Your task to perform on an android device: Play the last video I watched on Youtube Image 0: 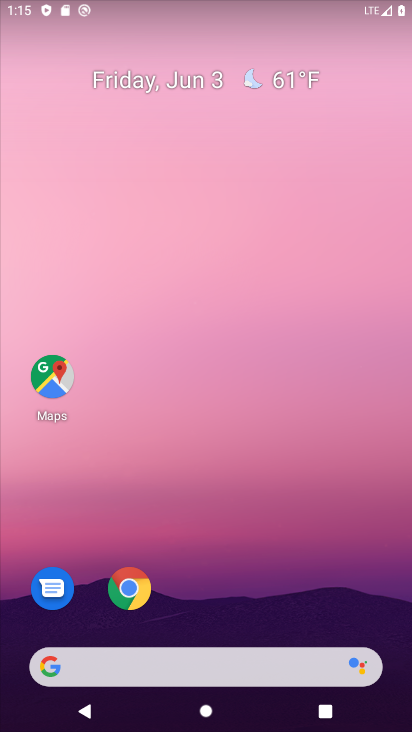
Step 0: drag from (211, 613) to (283, 116)
Your task to perform on an android device: Play the last video I watched on Youtube Image 1: 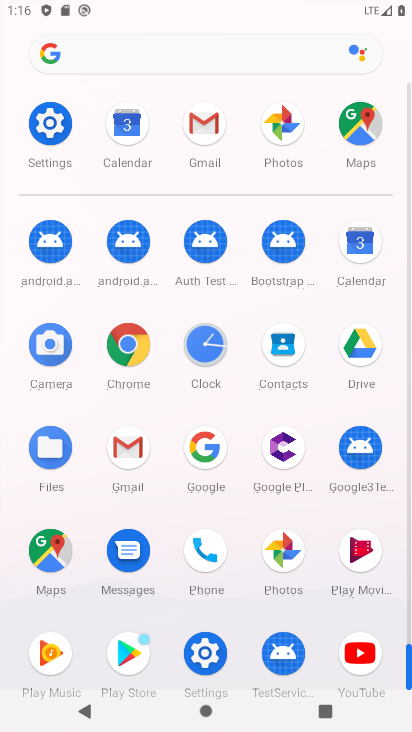
Step 1: drag from (245, 196) to (254, 62)
Your task to perform on an android device: Play the last video I watched on Youtube Image 2: 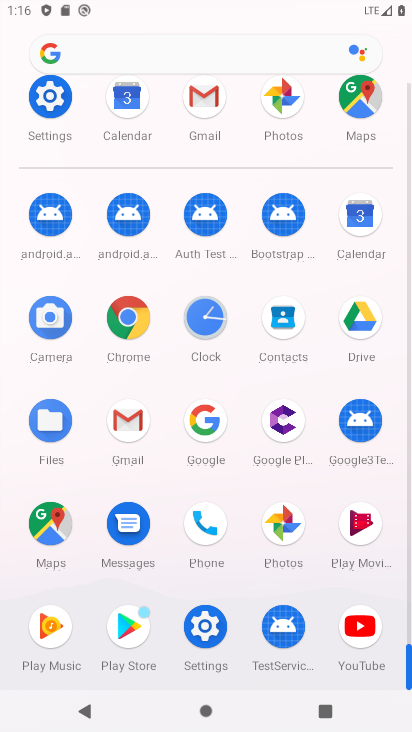
Step 2: click (355, 615)
Your task to perform on an android device: Play the last video I watched on Youtube Image 3: 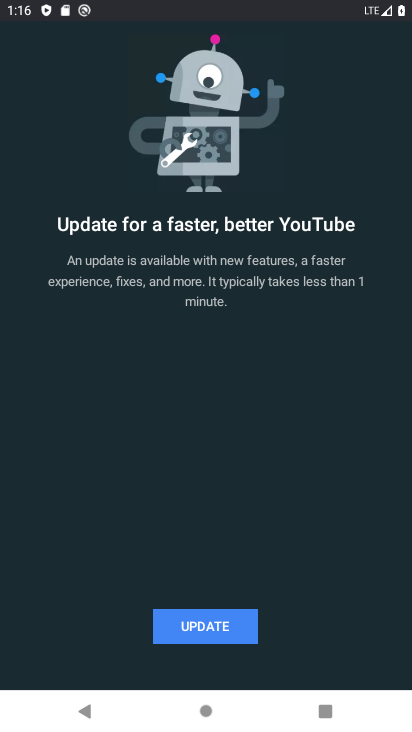
Step 3: click (217, 633)
Your task to perform on an android device: Play the last video I watched on Youtube Image 4: 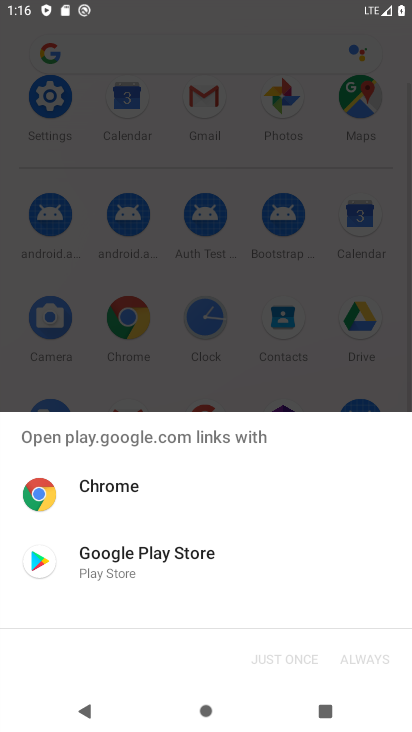
Step 4: click (205, 563)
Your task to perform on an android device: Play the last video I watched on Youtube Image 5: 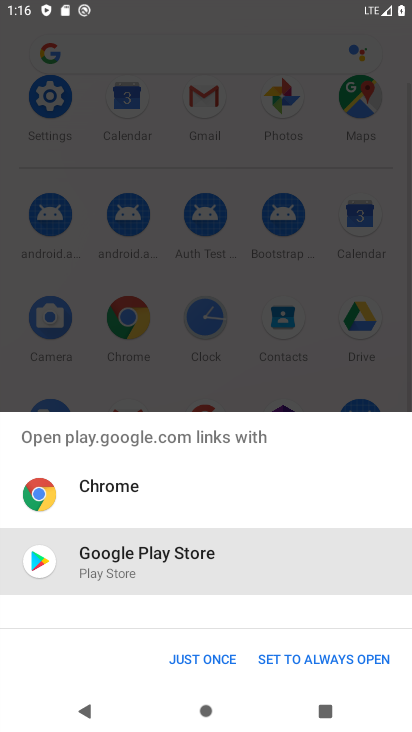
Step 5: click (200, 661)
Your task to perform on an android device: Play the last video I watched on Youtube Image 6: 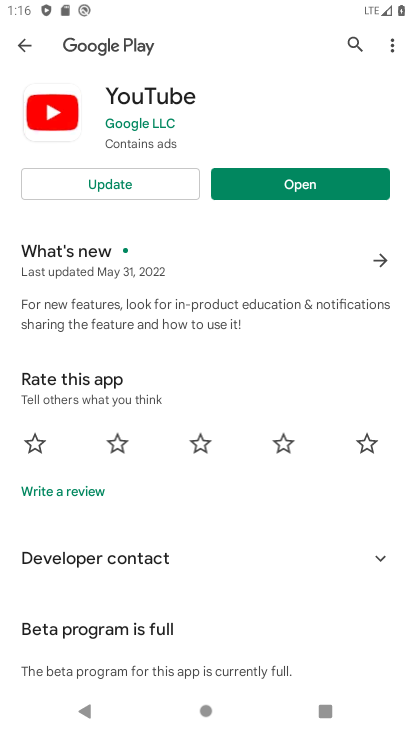
Step 6: click (142, 193)
Your task to perform on an android device: Play the last video I watched on Youtube Image 7: 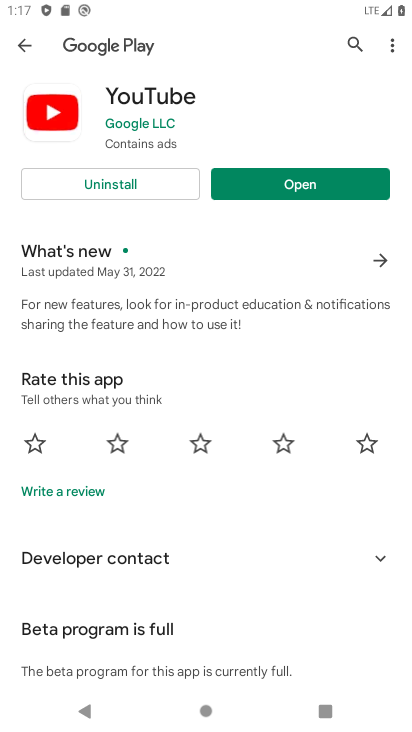
Step 7: click (307, 193)
Your task to perform on an android device: Play the last video I watched on Youtube Image 8: 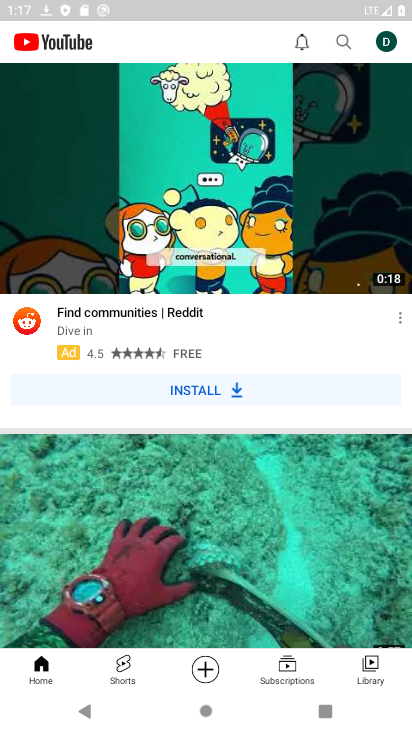
Step 8: click (374, 679)
Your task to perform on an android device: Play the last video I watched on Youtube Image 9: 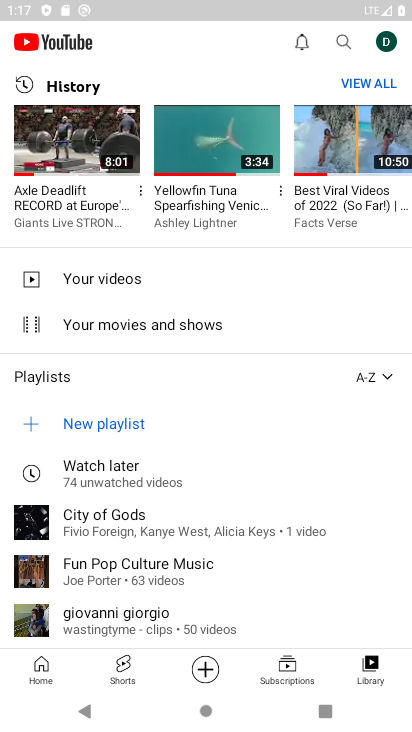
Step 9: click (82, 177)
Your task to perform on an android device: Play the last video I watched on Youtube Image 10: 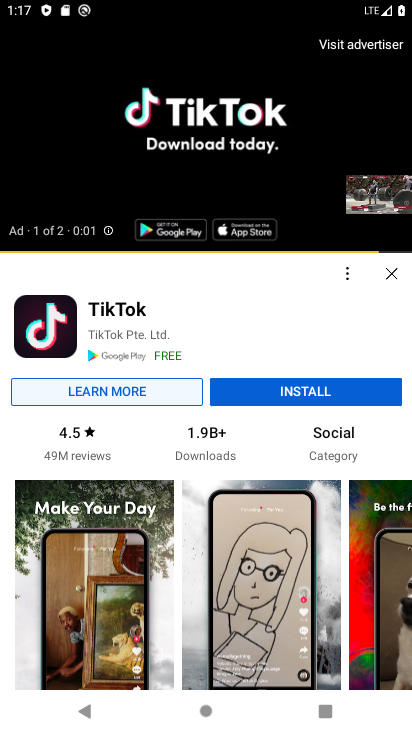
Step 10: click (385, 270)
Your task to perform on an android device: Play the last video I watched on Youtube Image 11: 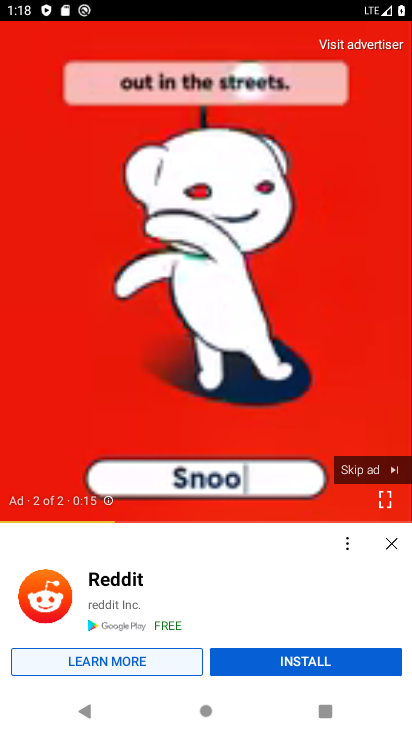
Step 11: task complete